Your task to perform on an android device: empty trash in google photos Image 0: 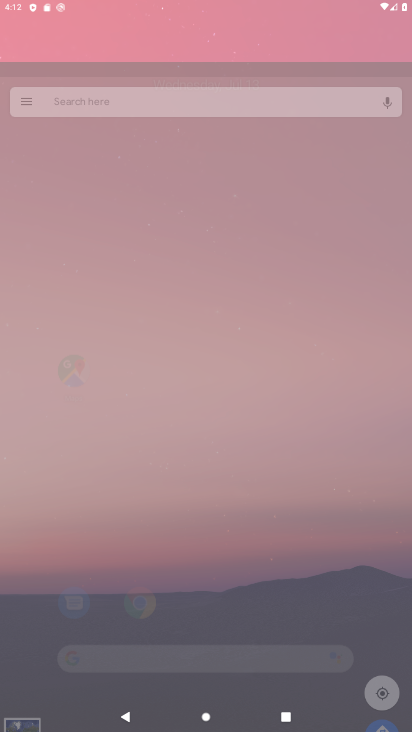
Step 0: click (239, 176)
Your task to perform on an android device: empty trash in google photos Image 1: 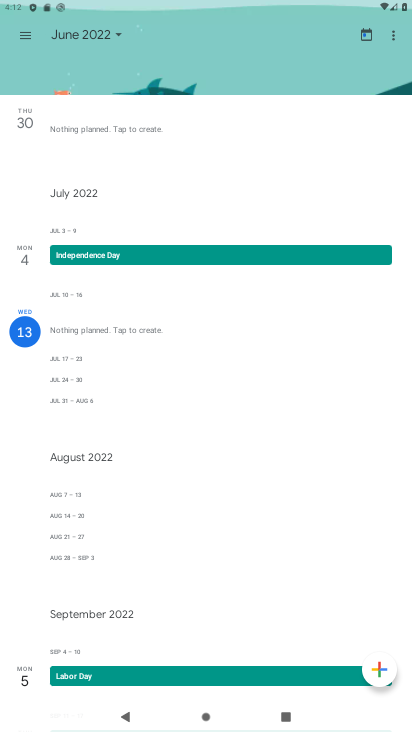
Step 1: press home button
Your task to perform on an android device: empty trash in google photos Image 2: 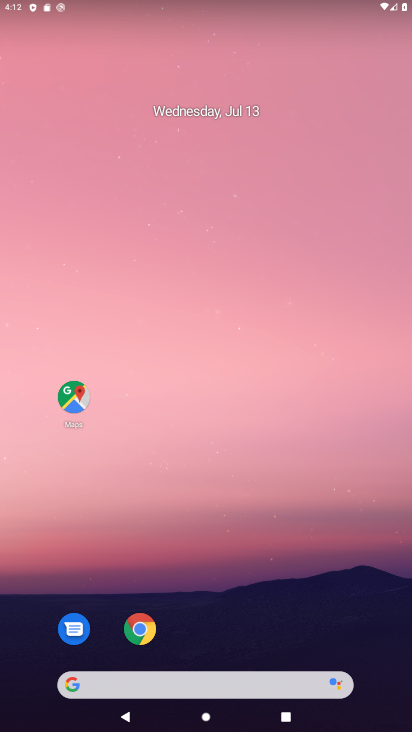
Step 2: drag from (230, 600) to (275, 6)
Your task to perform on an android device: empty trash in google photos Image 3: 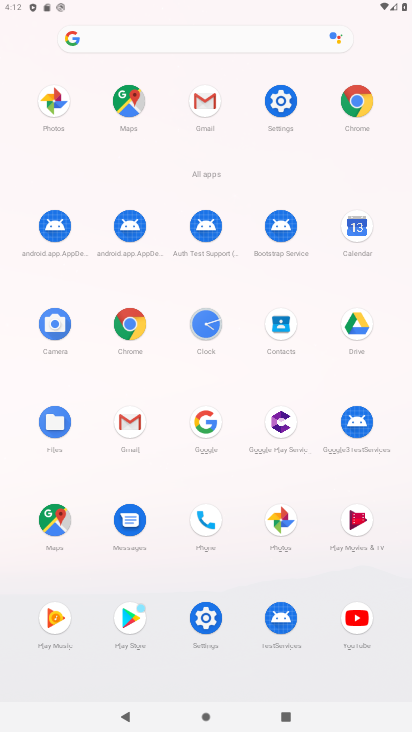
Step 3: click (282, 520)
Your task to perform on an android device: empty trash in google photos Image 4: 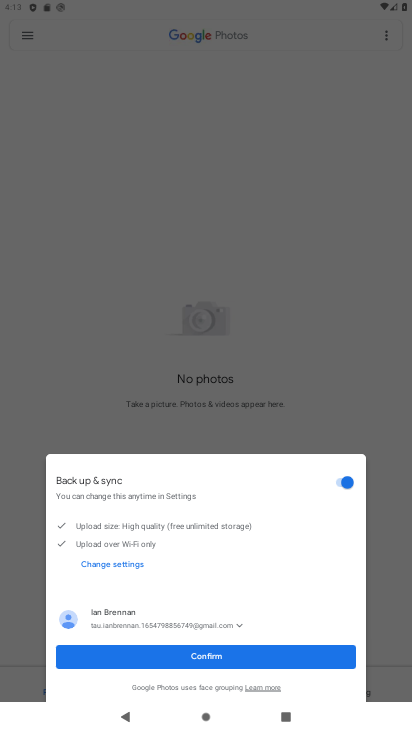
Step 4: click (223, 655)
Your task to perform on an android device: empty trash in google photos Image 5: 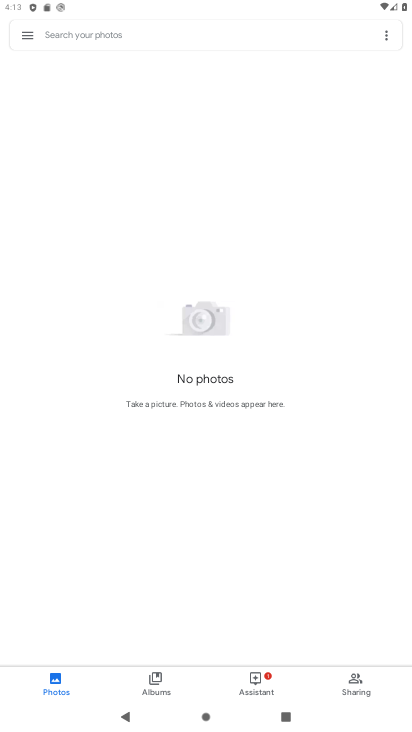
Step 5: click (20, 30)
Your task to perform on an android device: empty trash in google photos Image 6: 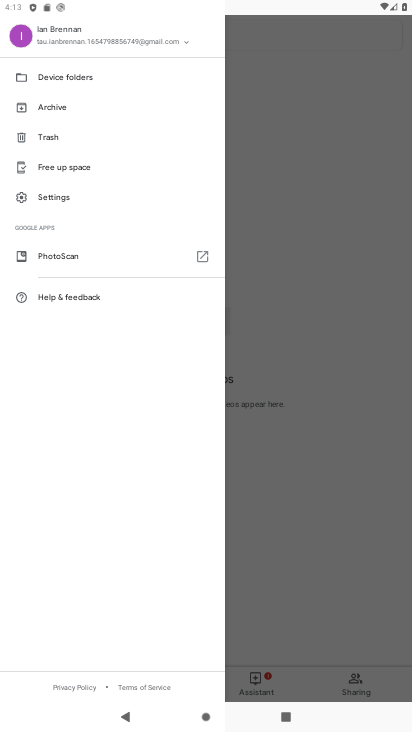
Step 6: click (52, 139)
Your task to perform on an android device: empty trash in google photos Image 7: 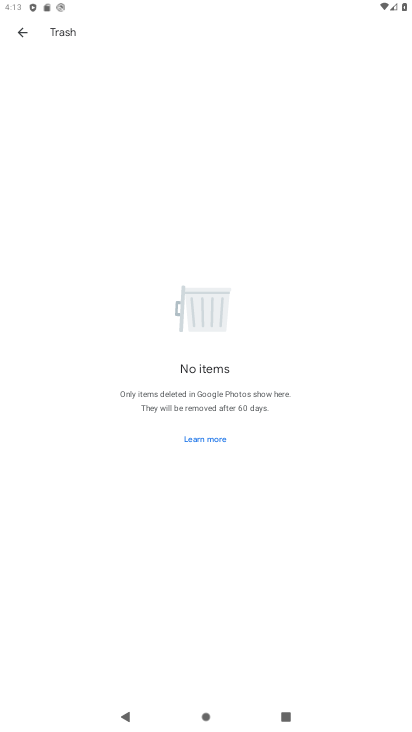
Step 7: task complete